Your task to perform on an android device: manage bookmarks in the chrome app Image 0: 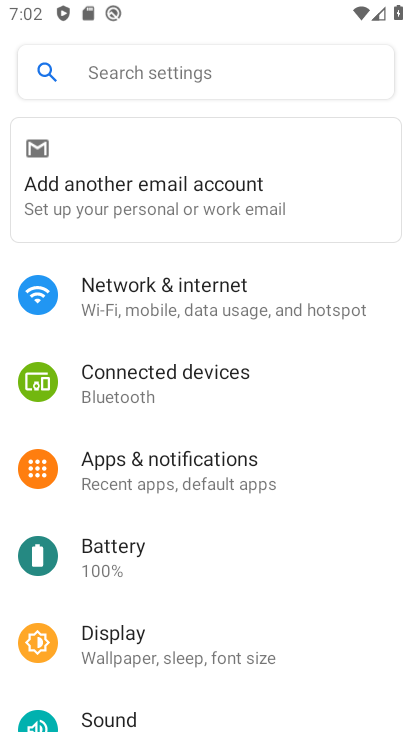
Step 0: press home button
Your task to perform on an android device: manage bookmarks in the chrome app Image 1: 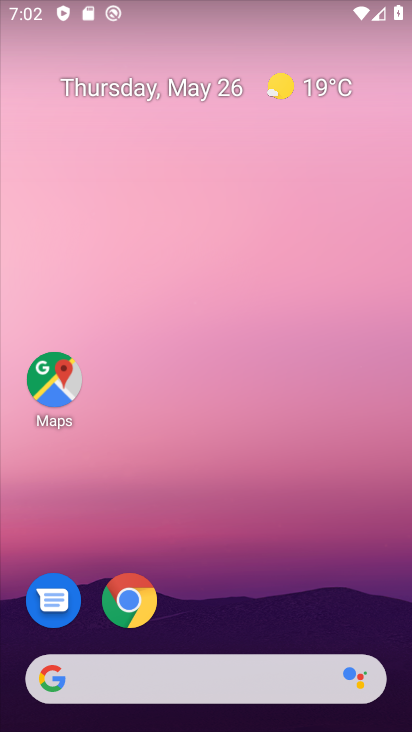
Step 1: drag from (252, 702) to (370, 124)
Your task to perform on an android device: manage bookmarks in the chrome app Image 2: 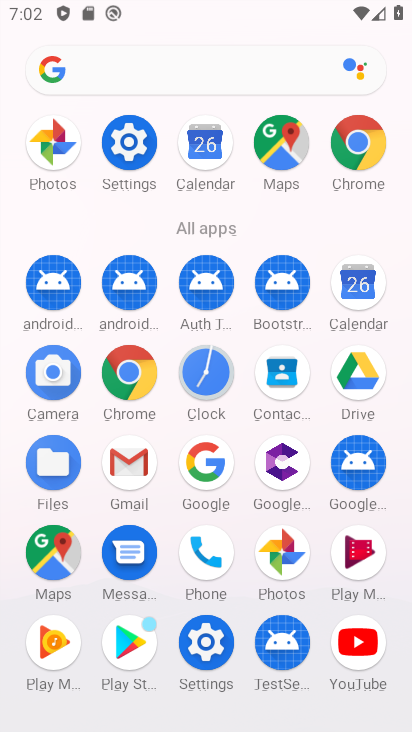
Step 2: click (368, 153)
Your task to perform on an android device: manage bookmarks in the chrome app Image 3: 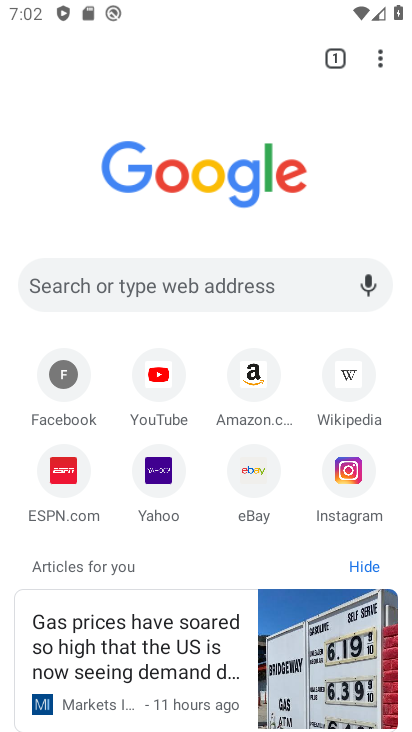
Step 3: click (379, 63)
Your task to perform on an android device: manage bookmarks in the chrome app Image 4: 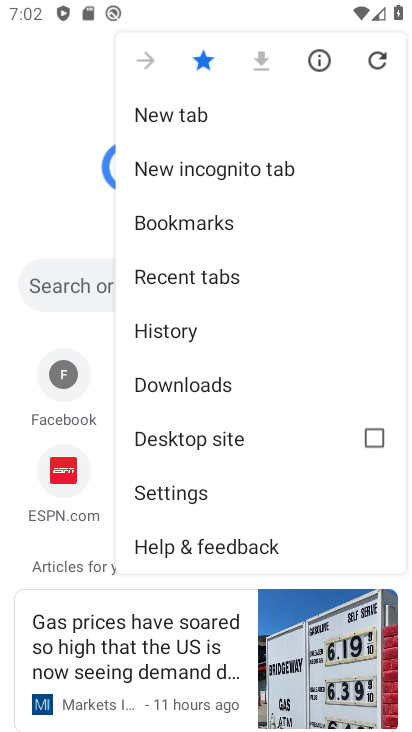
Step 4: click (201, 225)
Your task to perform on an android device: manage bookmarks in the chrome app Image 5: 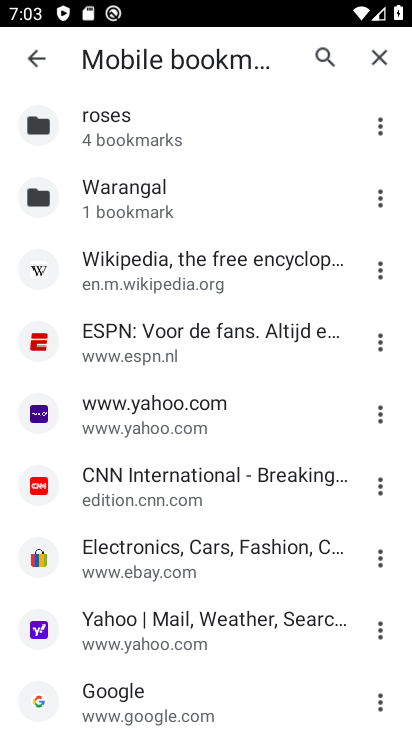
Step 5: task complete